Your task to perform on an android device: star an email in the gmail app Image 0: 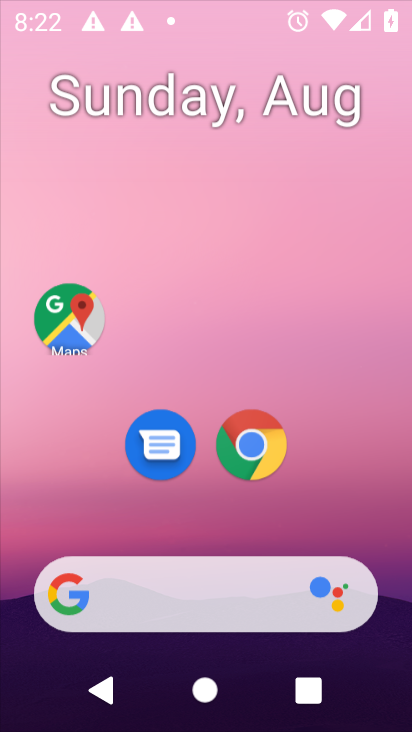
Step 0: press home button
Your task to perform on an android device: star an email in the gmail app Image 1: 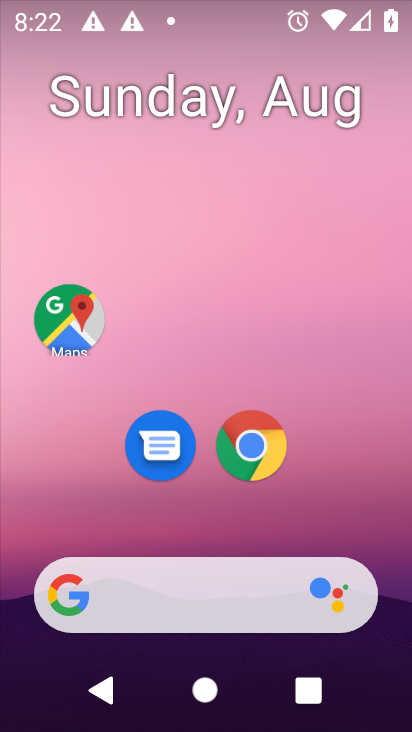
Step 1: drag from (204, 523) to (203, 69)
Your task to perform on an android device: star an email in the gmail app Image 2: 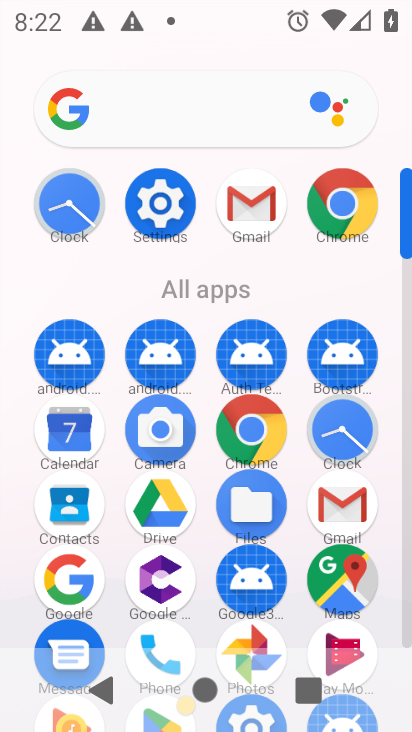
Step 2: click (250, 191)
Your task to perform on an android device: star an email in the gmail app Image 3: 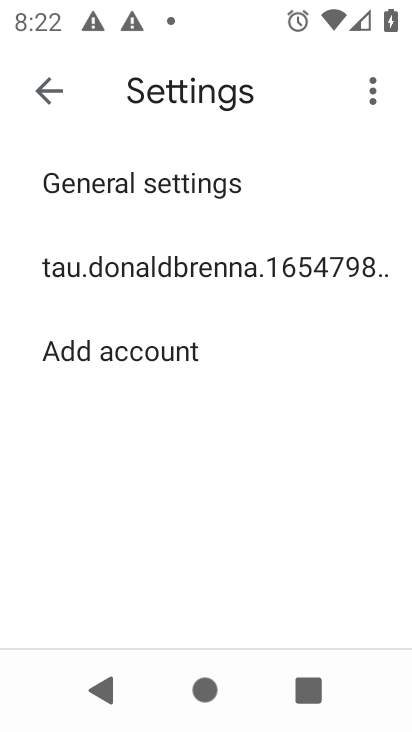
Step 3: press home button
Your task to perform on an android device: star an email in the gmail app Image 4: 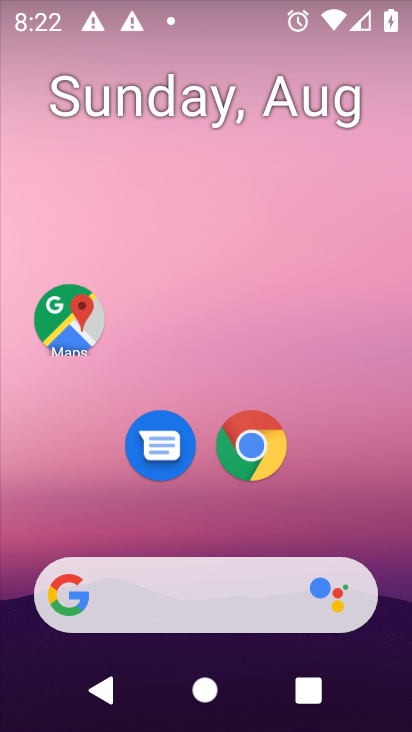
Step 4: drag from (209, 532) to (202, 9)
Your task to perform on an android device: star an email in the gmail app Image 5: 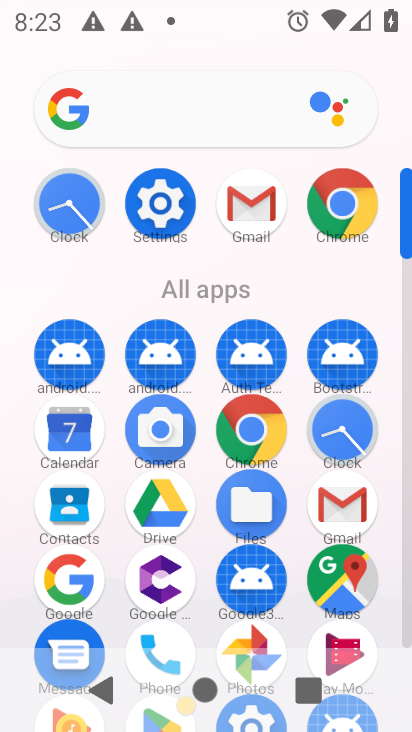
Step 5: click (250, 188)
Your task to perform on an android device: star an email in the gmail app Image 6: 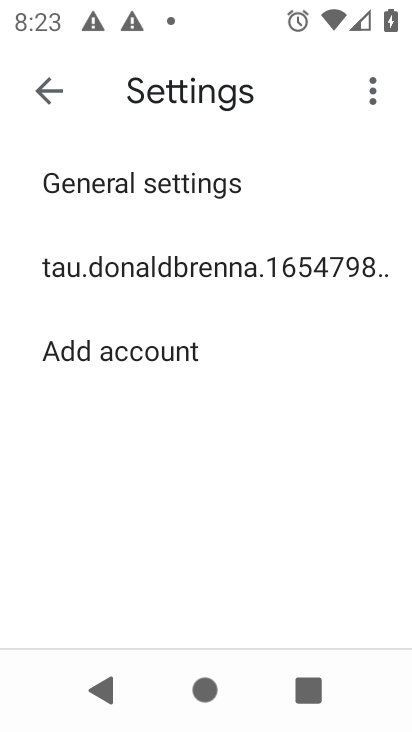
Step 6: click (44, 107)
Your task to perform on an android device: star an email in the gmail app Image 7: 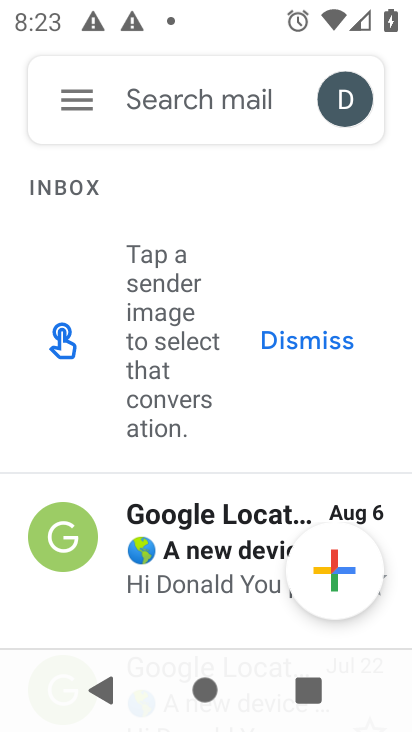
Step 7: drag from (197, 481) to (212, 162)
Your task to perform on an android device: star an email in the gmail app Image 8: 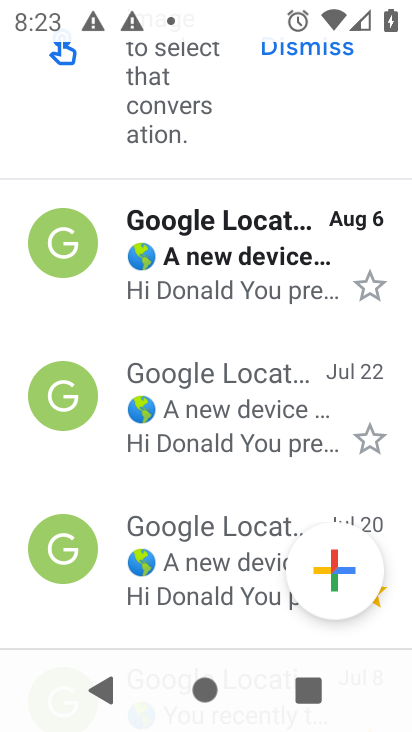
Step 8: click (371, 290)
Your task to perform on an android device: star an email in the gmail app Image 9: 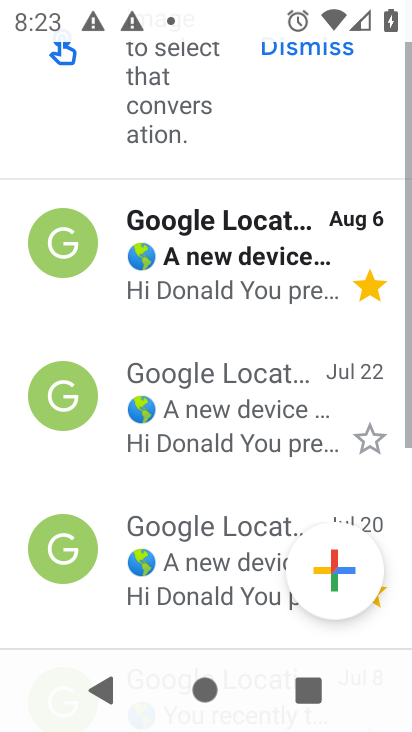
Step 9: task complete